Your task to perform on an android device: turn off translation in the chrome app Image 0: 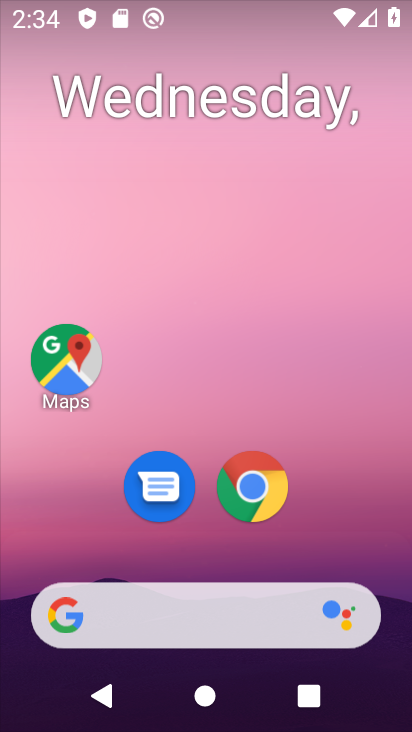
Step 0: click (248, 502)
Your task to perform on an android device: turn off translation in the chrome app Image 1: 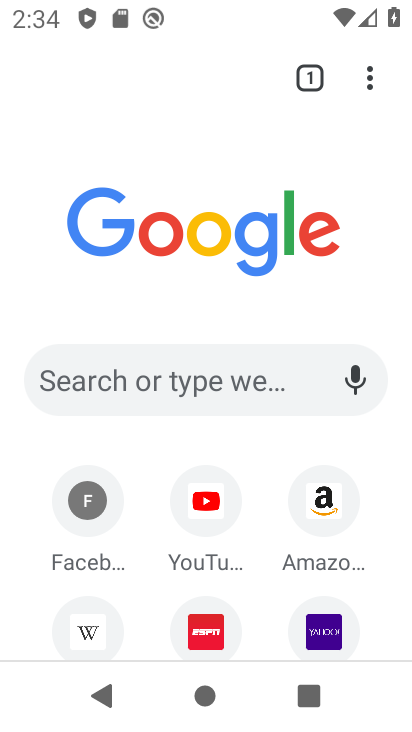
Step 1: drag from (361, 79) to (143, 562)
Your task to perform on an android device: turn off translation in the chrome app Image 2: 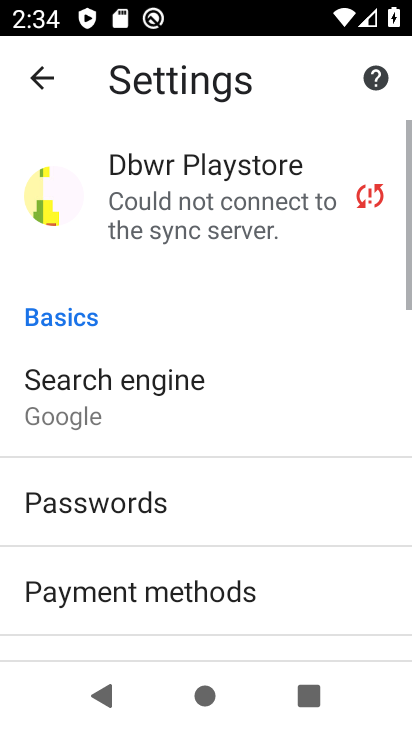
Step 2: drag from (152, 556) to (103, 78)
Your task to perform on an android device: turn off translation in the chrome app Image 3: 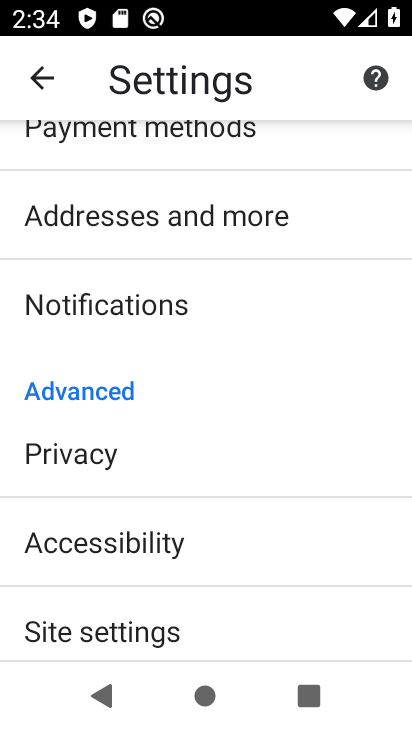
Step 3: drag from (117, 627) to (88, 322)
Your task to perform on an android device: turn off translation in the chrome app Image 4: 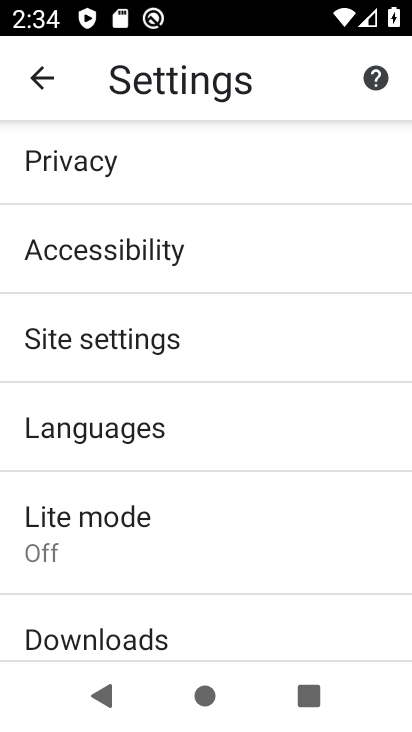
Step 4: click (79, 429)
Your task to perform on an android device: turn off translation in the chrome app Image 5: 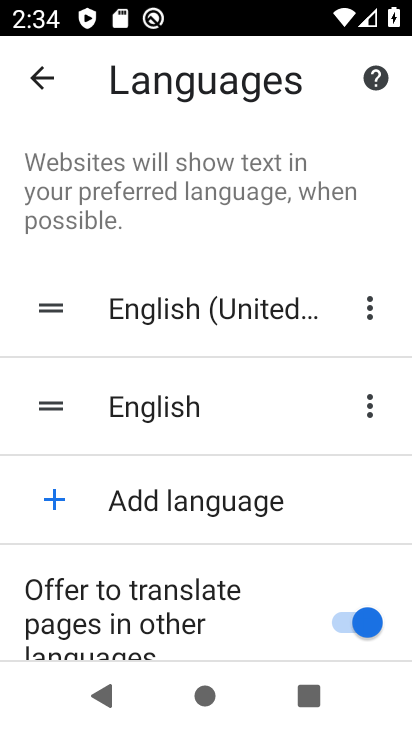
Step 5: click (223, 579)
Your task to perform on an android device: turn off translation in the chrome app Image 6: 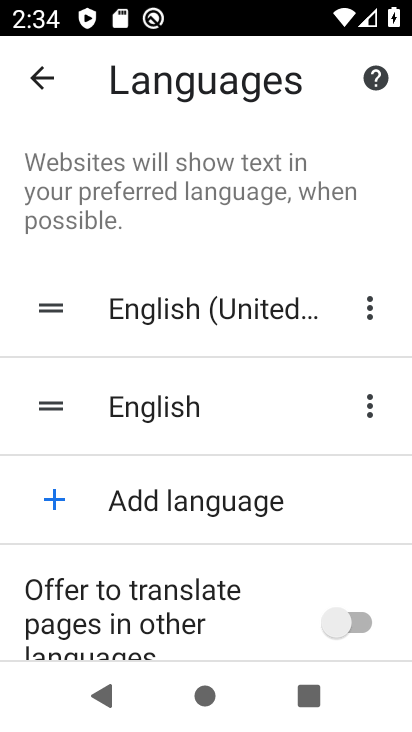
Step 6: task complete